Your task to perform on an android device: turn off data saver in the chrome app Image 0: 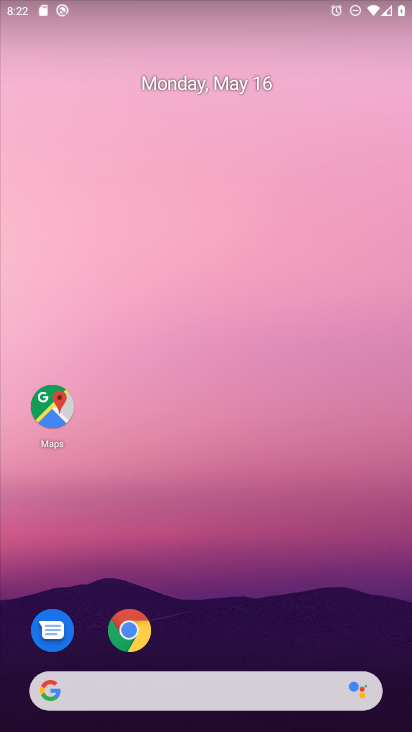
Step 0: click (125, 627)
Your task to perform on an android device: turn off data saver in the chrome app Image 1: 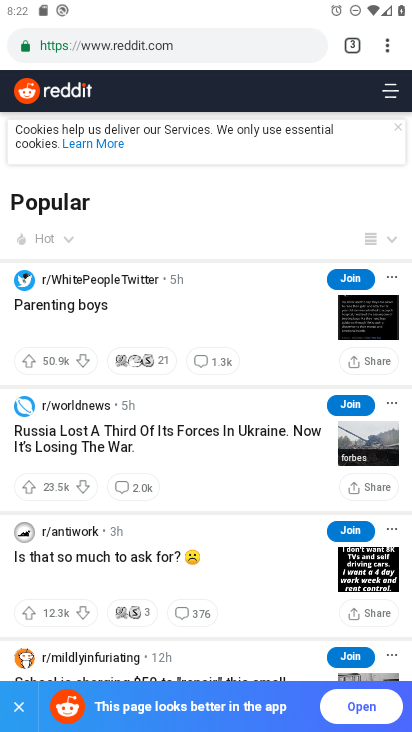
Step 1: click (377, 45)
Your task to perform on an android device: turn off data saver in the chrome app Image 2: 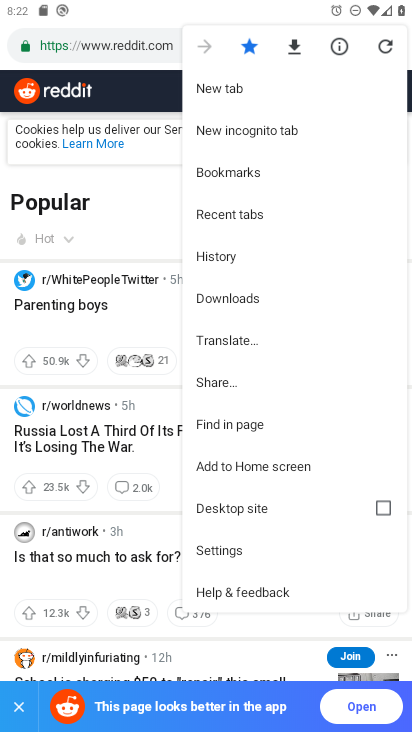
Step 2: drag from (312, 537) to (267, 113)
Your task to perform on an android device: turn off data saver in the chrome app Image 3: 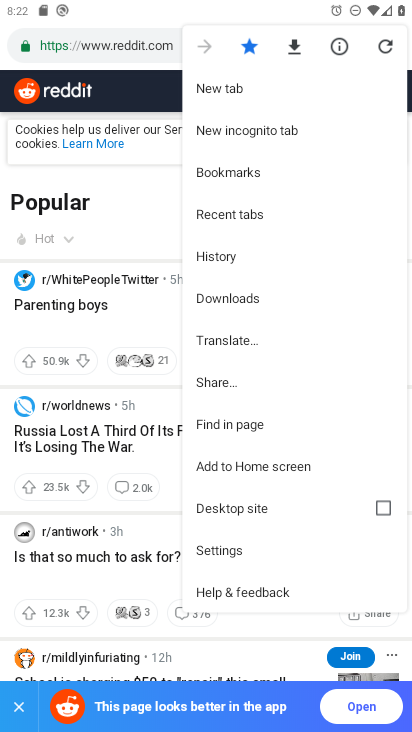
Step 3: click (248, 555)
Your task to perform on an android device: turn off data saver in the chrome app Image 4: 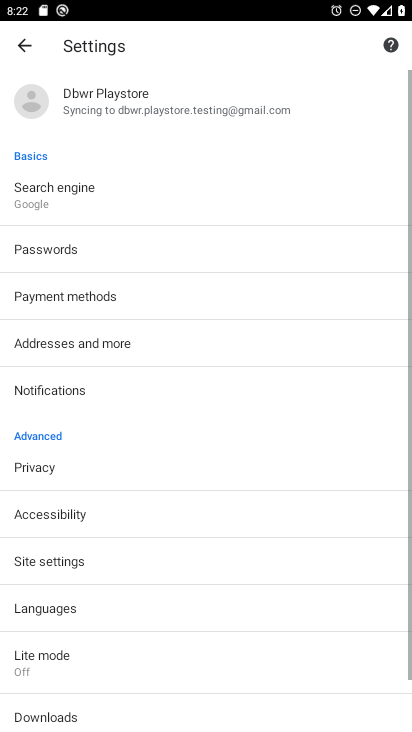
Step 4: drag from (174, 576) to (192, 186)
Your task to perform on an android device: turn off data saver in the chrome app Image 5: 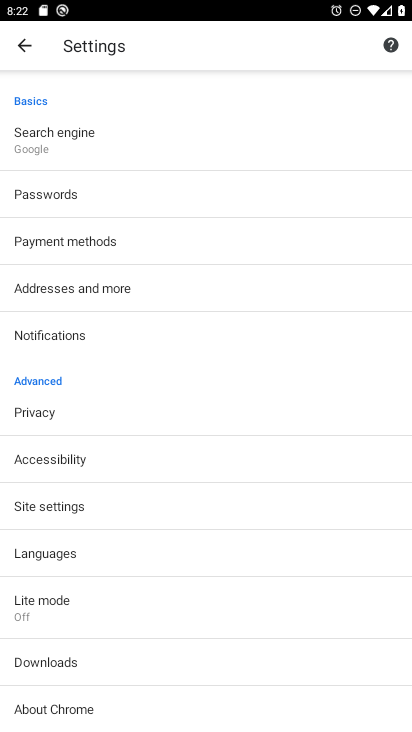
Step 5: drag from (177, 645) to (182, 395)
Your task to perform on an android device: turn off data saver in the chrome app Image 6: 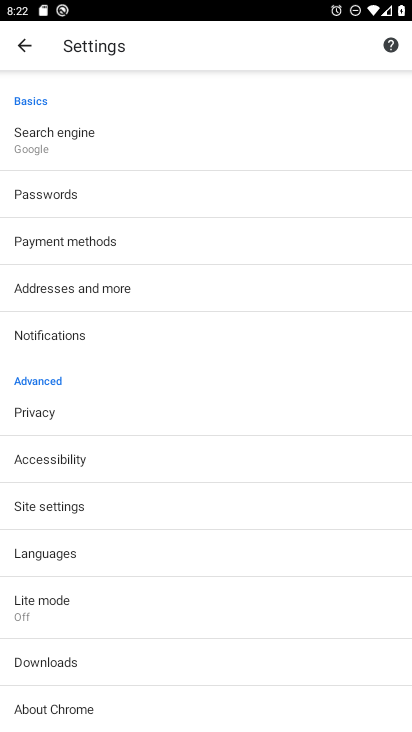
Step 6: click (75, 507)
Your task to perform on an android device: turn off data saver in the chrome app Image 7: 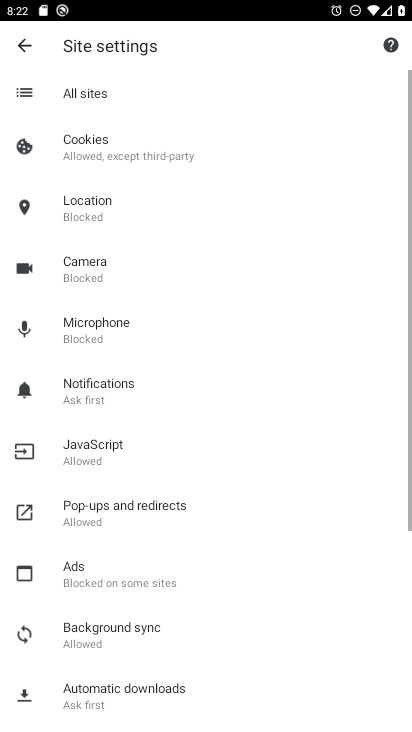
Step 7: drag from (213, 579) to (194, 158)
Your task to perform on an android device: turn off data saver in the chrome app Image 8: 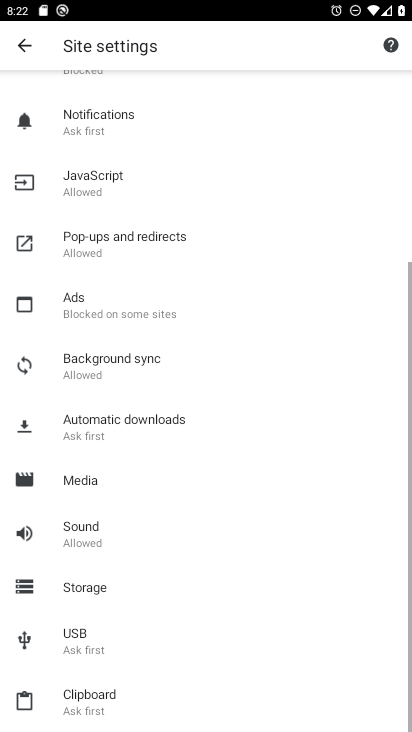
Step 8: drag from (205, 564) to (185, 175)
Your task to perform on an android device: turn off data saver in the chrome app Image 9: 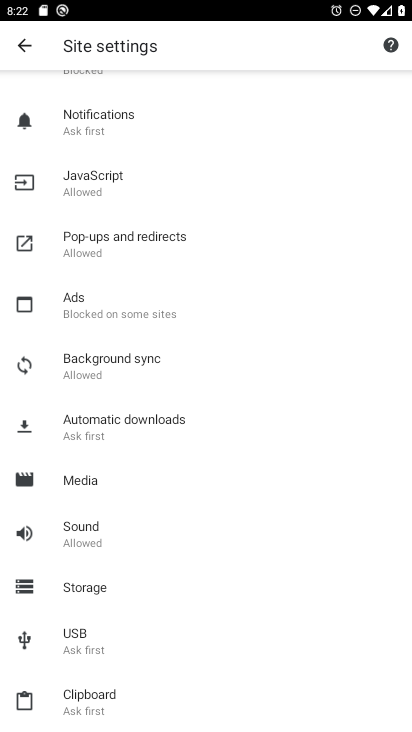
Step 9: press back button
Your task to perform on an android device: turn off data saver in the chrome app Image 10: 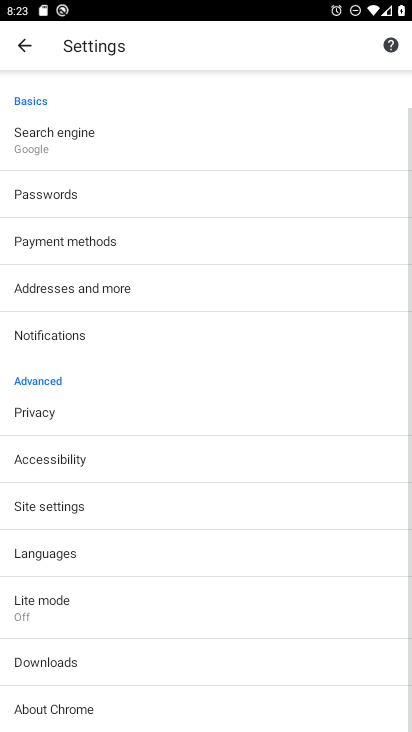
Step 10: click (73, 447)
Your task to perform on an android device: turn off data saver in the chrome app Image 11: 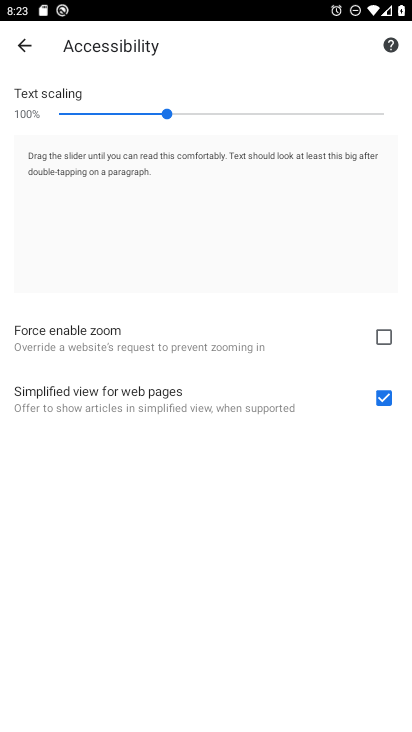
Step 11: press back button
Your task to perform on an android device: turn off data saver in the chrome app Image 12: 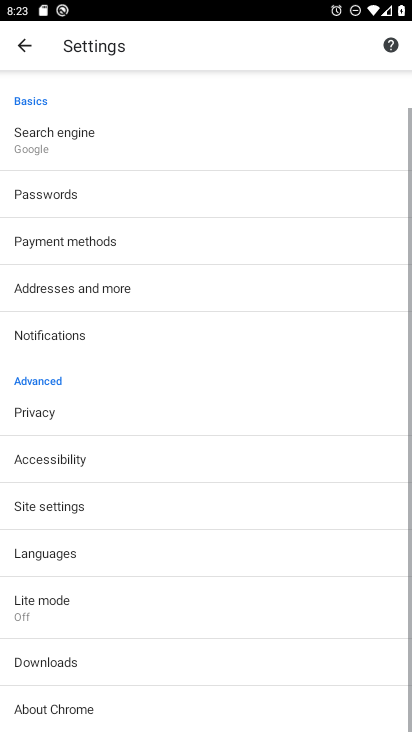
Step 12: click (251, 399)
Your task to perform on an android device: turn off data saver in the chrome app Image 13: 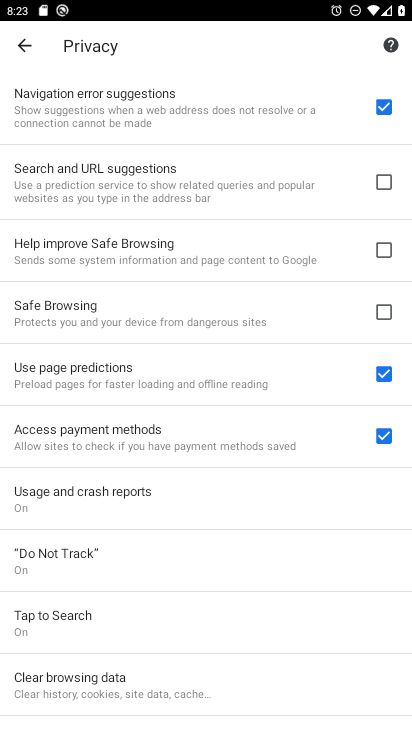
Step 13: drag from (252, 525) to (224, 225)
Your task to perform on an android device: turn off data saver in the chrome app Image 14: 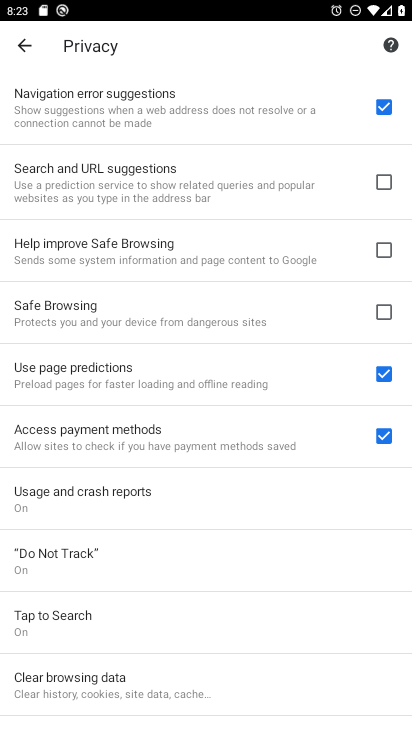
Step 14: press back button
Your task to perform on an android device: turn off data saver in the chrome app Image 15: 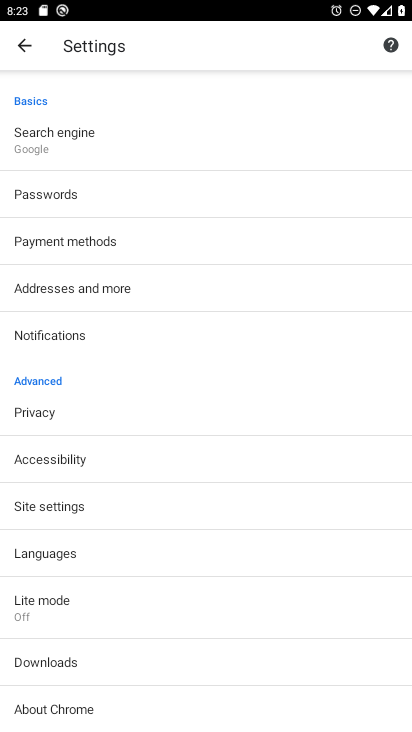
Step 15: drag from (93, 171) to (103, 656)
Your task to perform on an android device: turn off data saver in the chrome app Image 16: 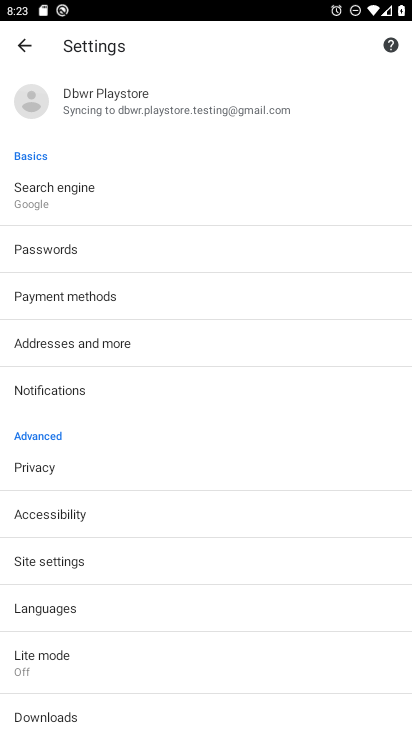
Step 16: drag from (125, 643) to (159, 90)
Your task to perform on an android device: turn off data saver in the chrome app Image 17: 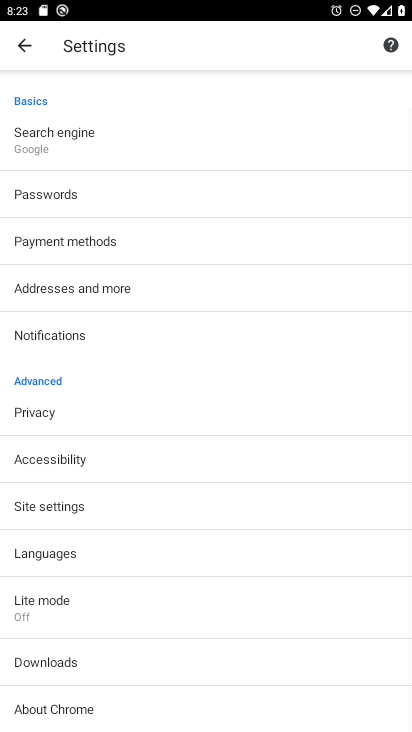
Step 17: click (124, 722)
Your task to perform on an android device: turn off data saver in the chrome app Image 18: 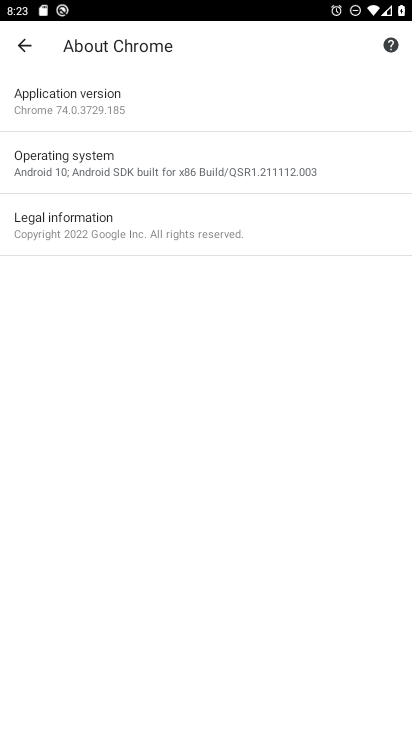
Step 18: task complete